Your task to perform on an android device: open app "Speedtest by Ookla" Image 0: 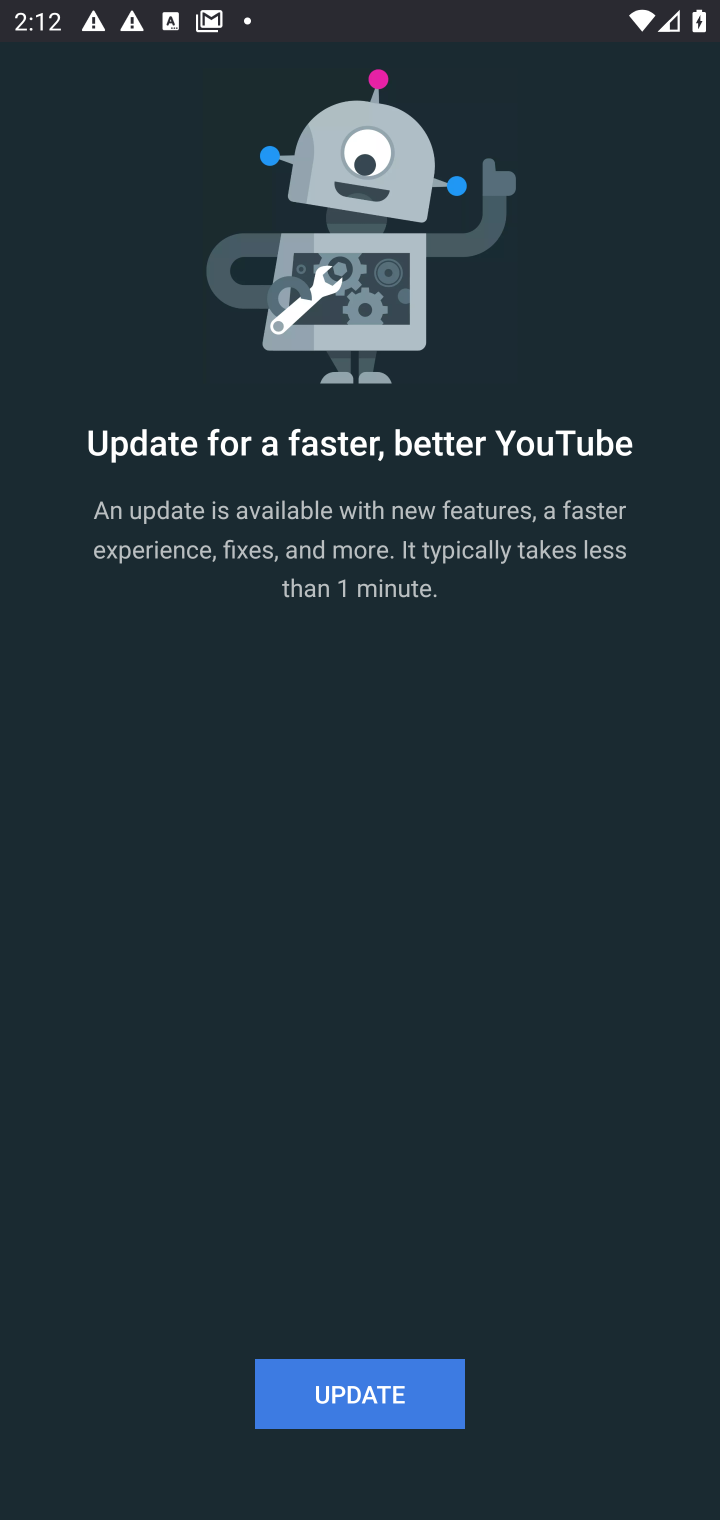
Step 0: press home button
Your task to perform on an android device: open app "Speedtest by Ookla" Image 1: 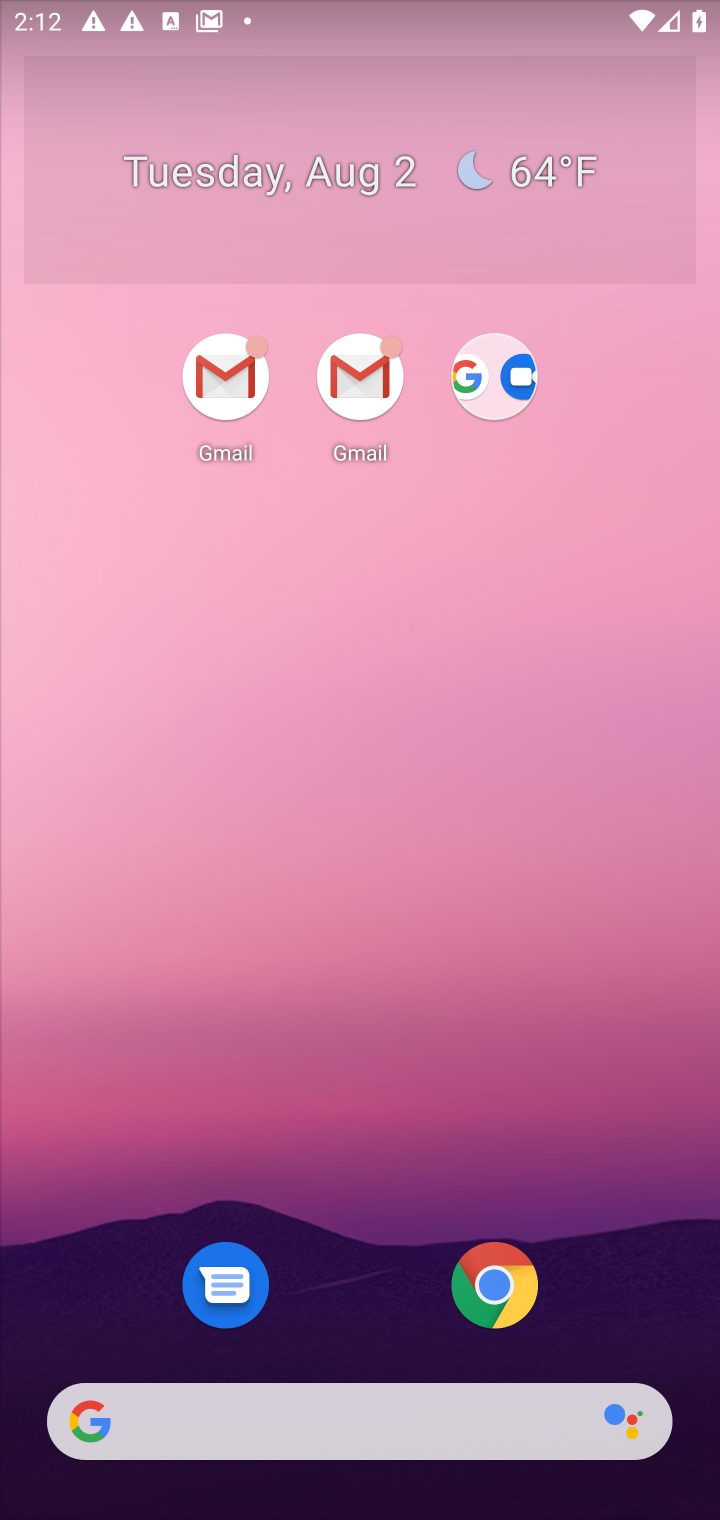
Step 1: drag from (573, 1174) to (539, 141)
Your task to perform on an android device: open app "Speedtest by Ookla" Image 2: 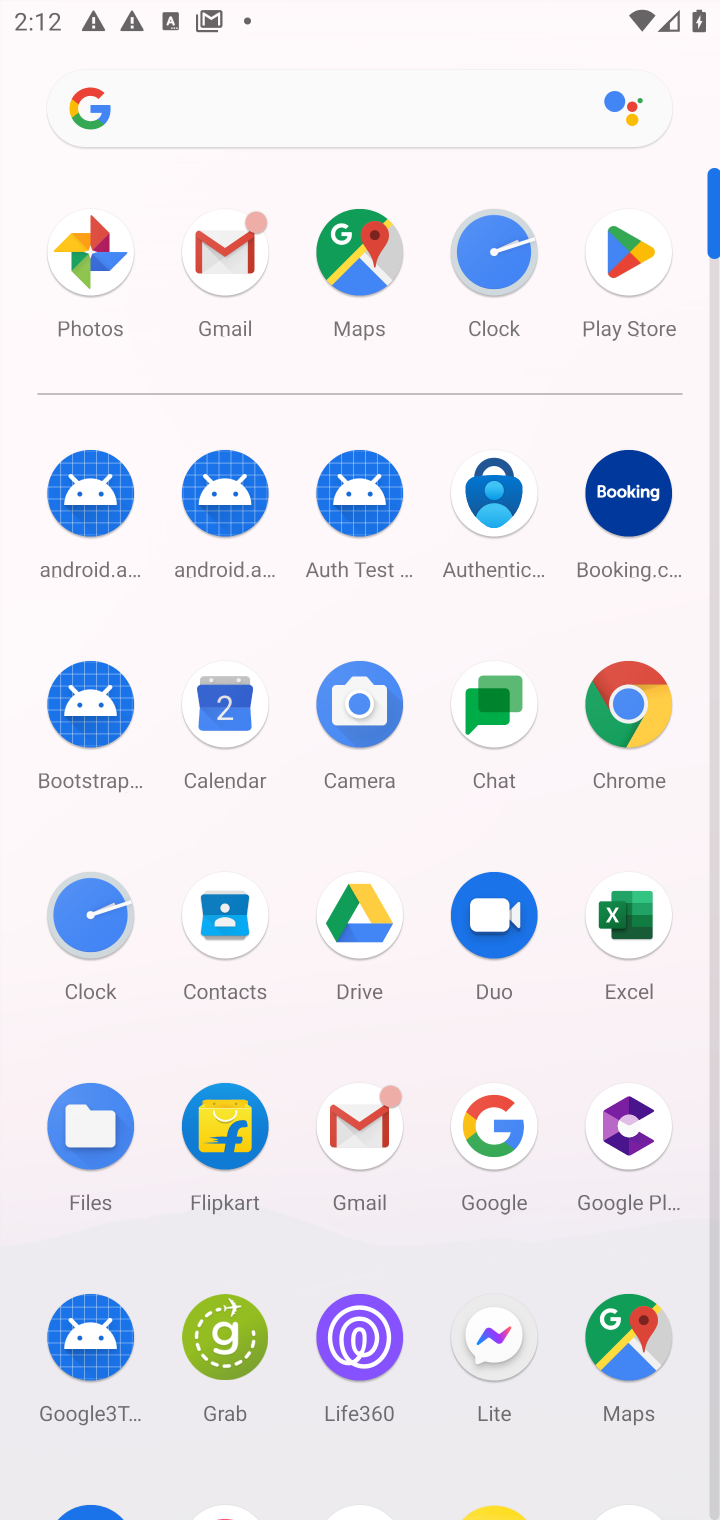
Step 2: drag from (430, 952) to (449, 220)
Your task to perform on an android device: open app "Speedtest by Ookla" Image 3: 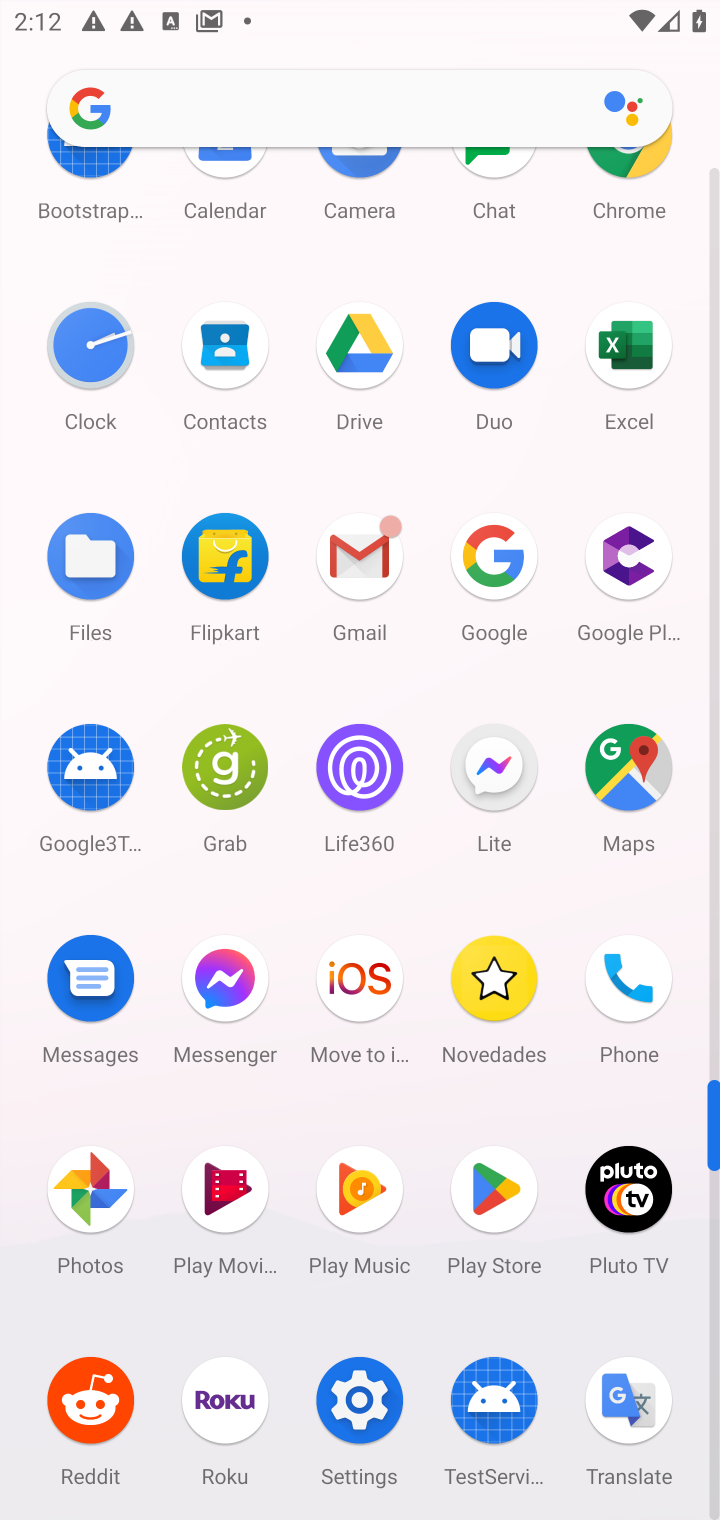
Step 3: click (503, 1183)
Your task to perform on an android device: open app "Speedtest by Ookla" Image 4: 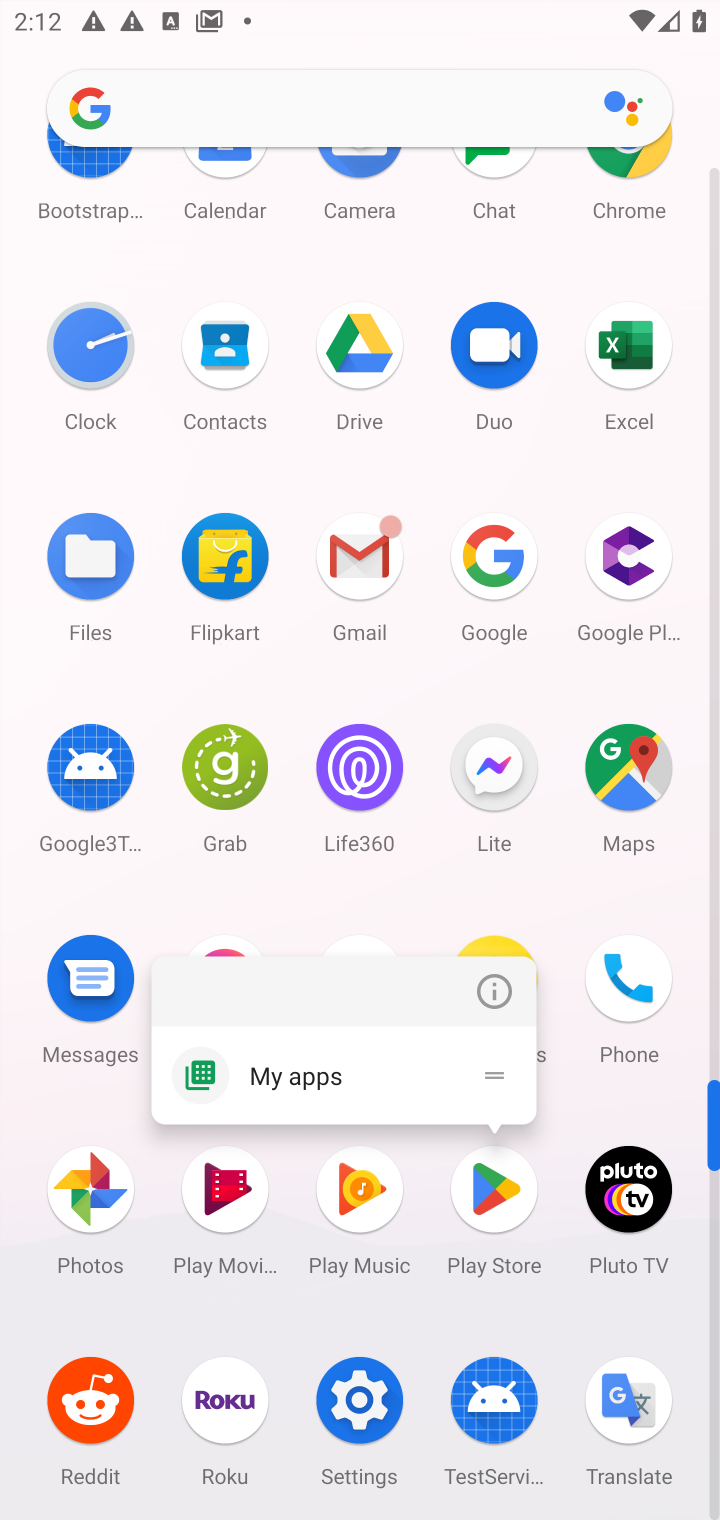
Step 4: click (503, 1183)
Your task to perform on an android device: open app "Speedtest by Ookla" Image 5: 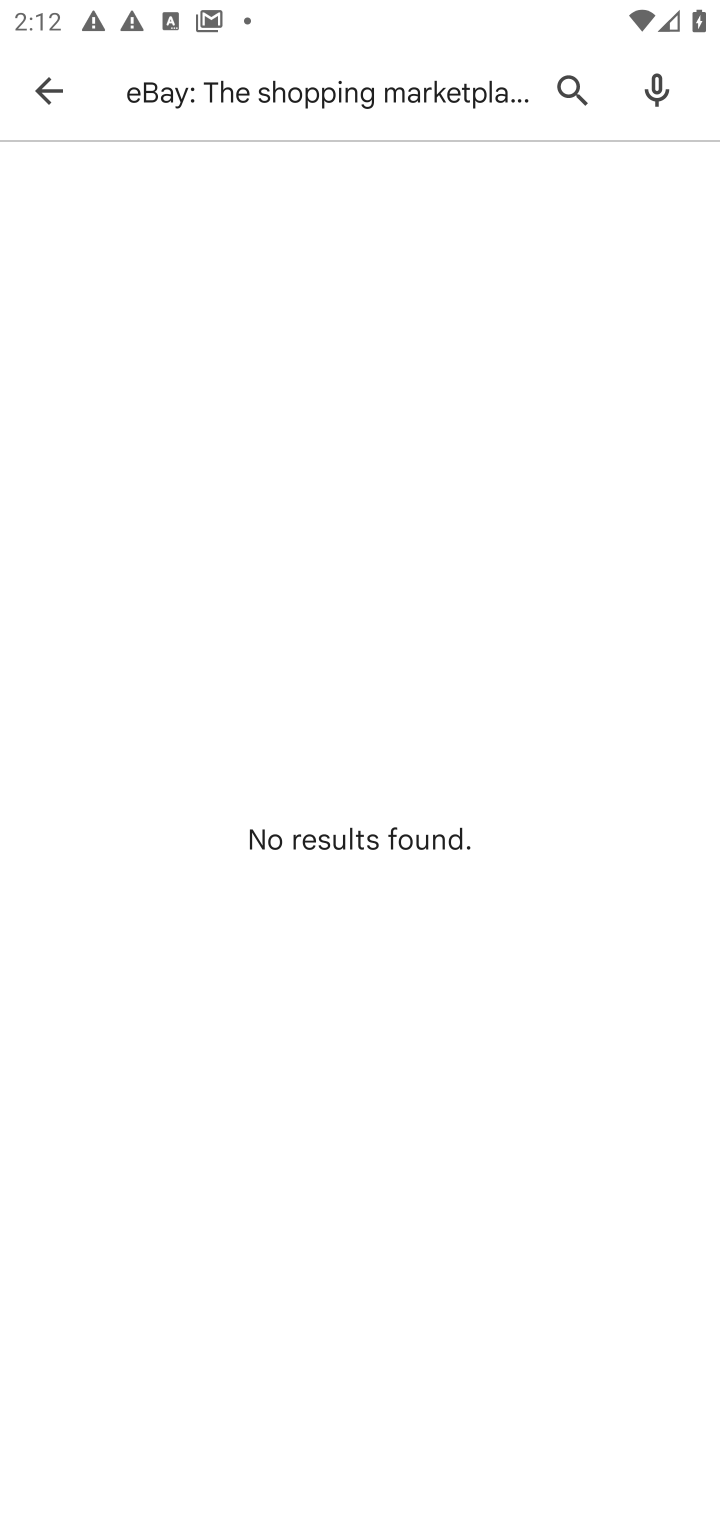
Step 5: click (296, 85)
Your task to perform on an android device: open app "Speedtest by Ookla" Image 6: 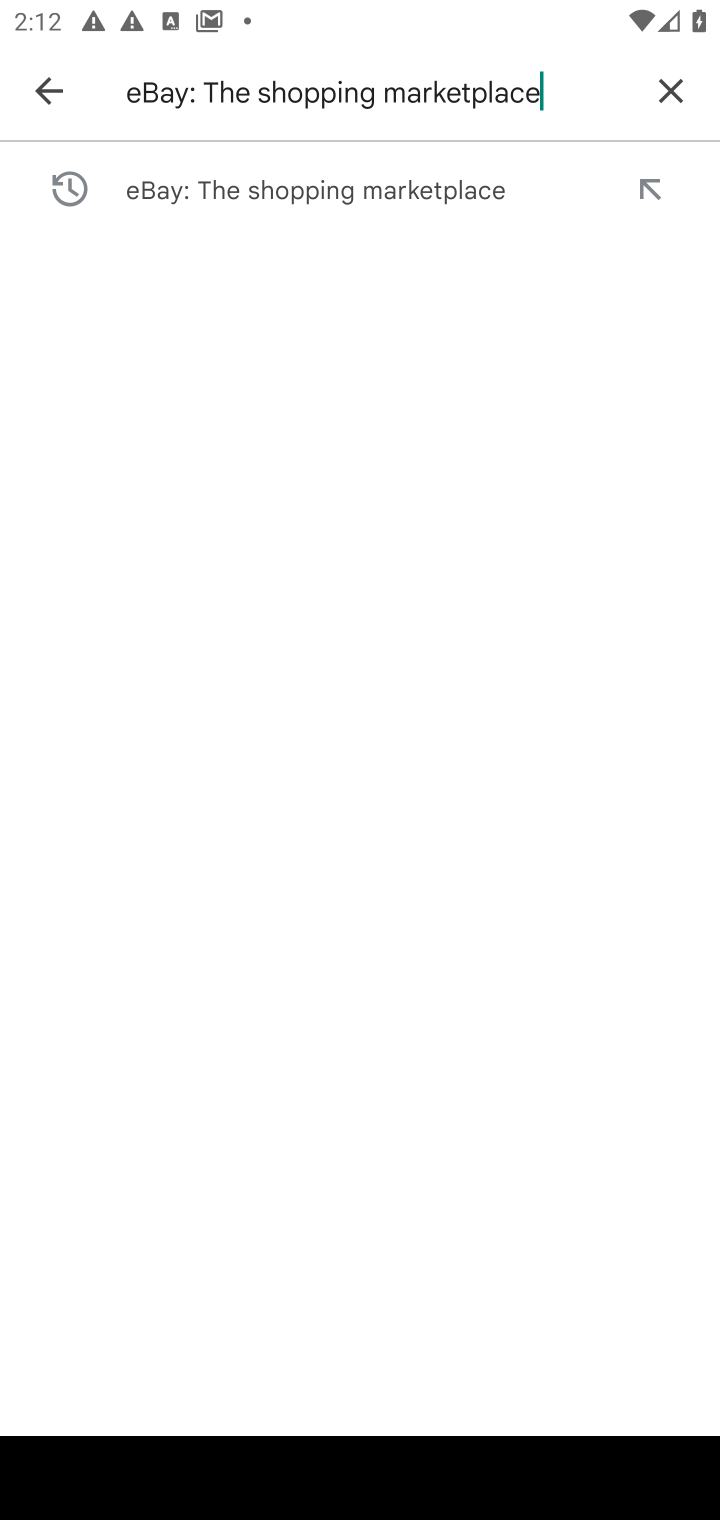
Step 6: click (651, 97)
Your task to perform on an android device: open app "Speedtest by Ookla" Image 7: 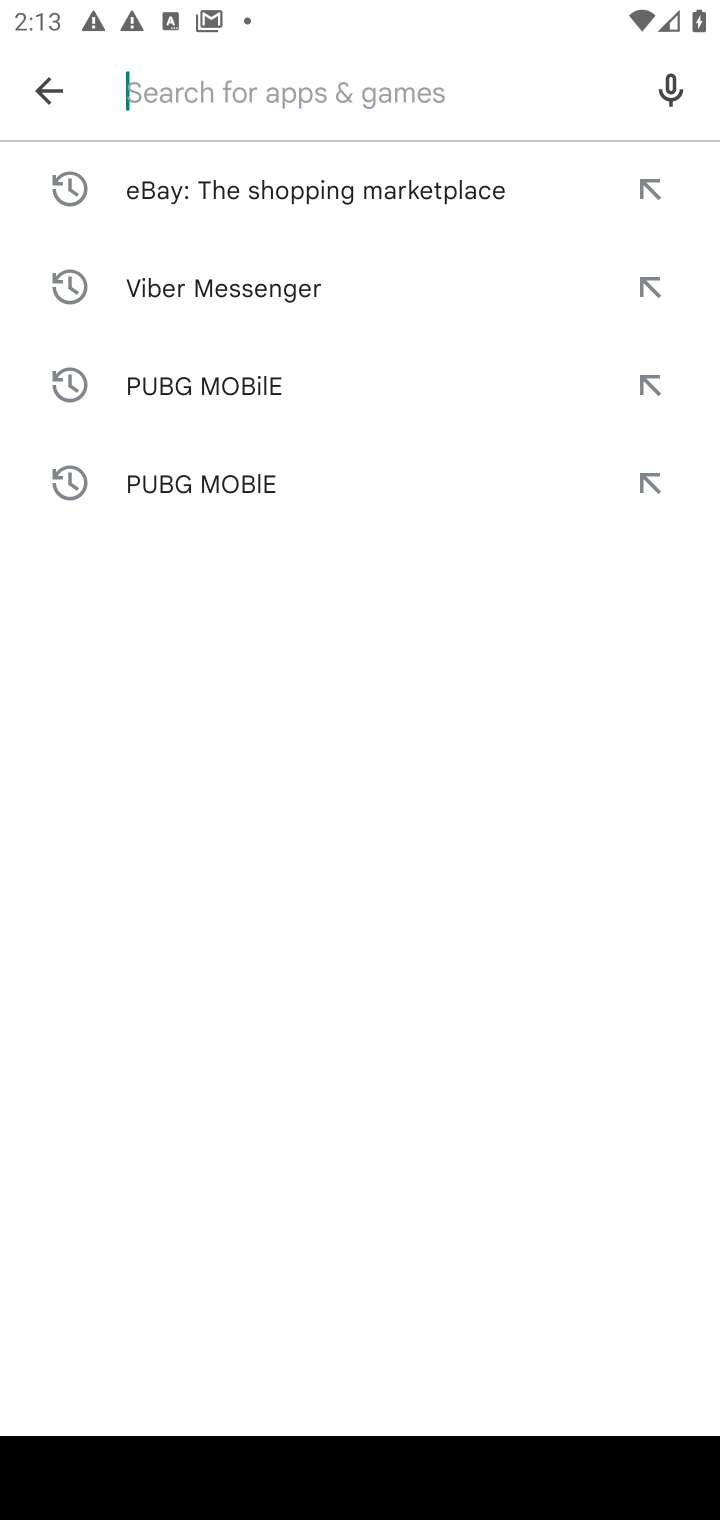
Step 7: type "Speedtest by Ookla"
Your task to perform on an android device: open app "Speedtest by Ookla" Image 8: 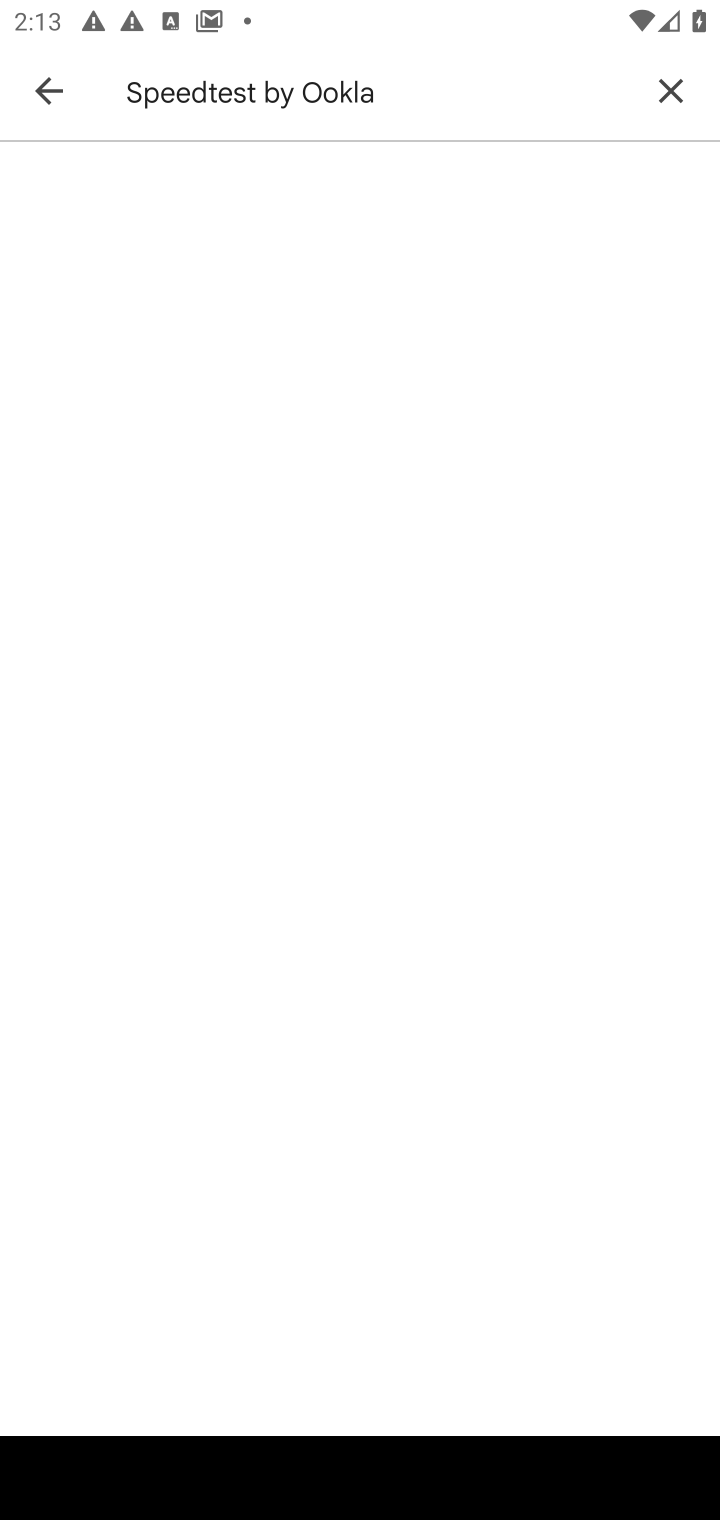
Step 8: press enter
Your task to perform on an android device: open app "Speedtest by Ookla" Image 9: 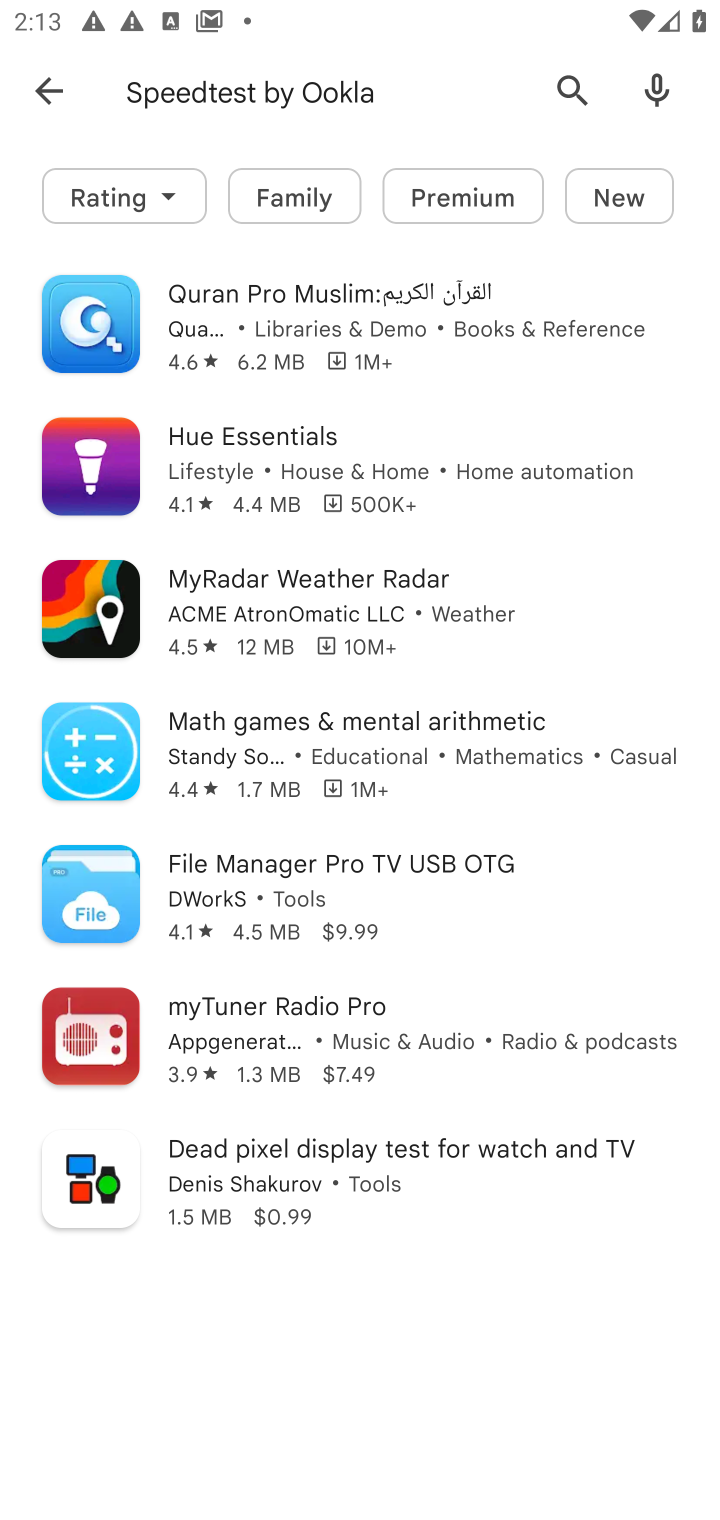
Step 9: press home button
Your task to perform on an android device: open app "Speedtest by Ookla" Image 10: 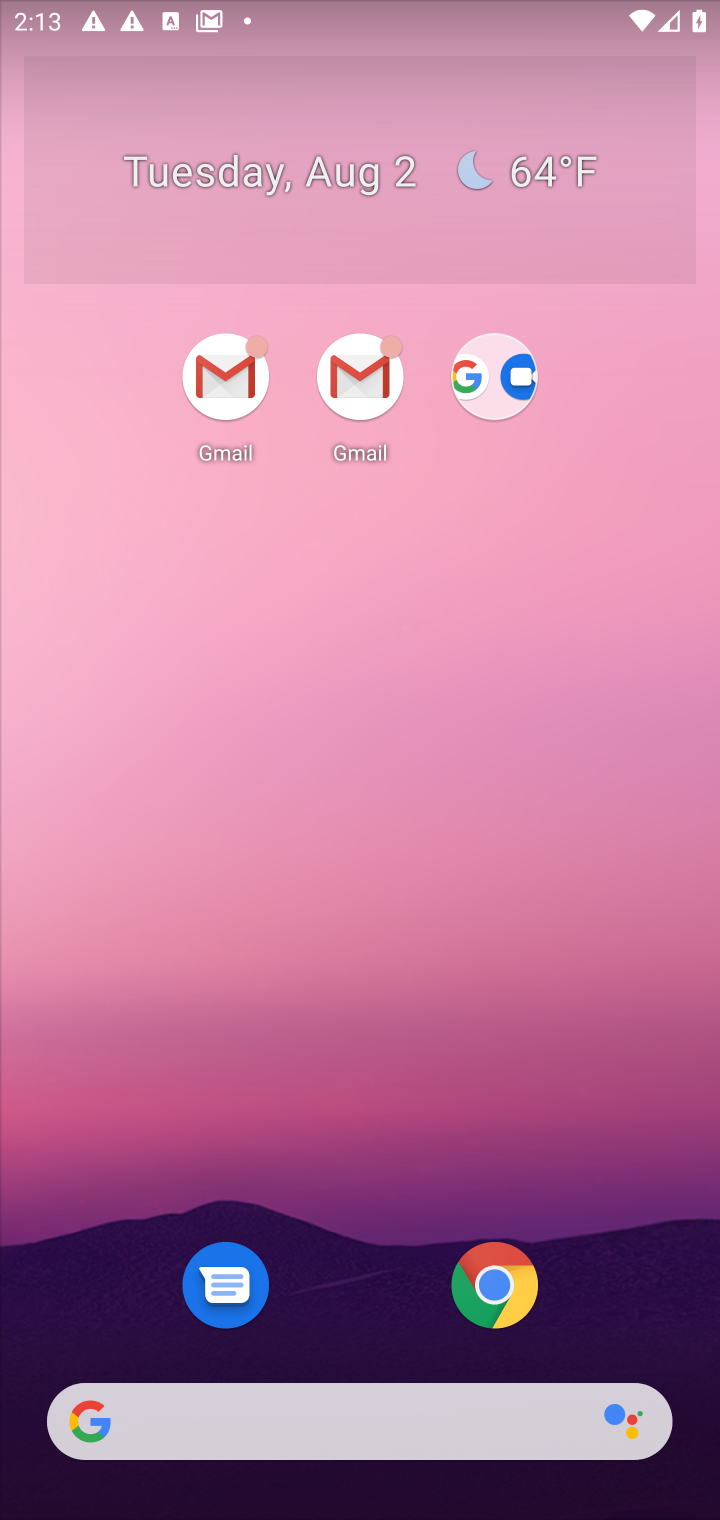
Step 10: drag from (530, 1017) to (535, 100)
Your task to perform on an android device: open app "Speedtest by Ookla" Image 11: 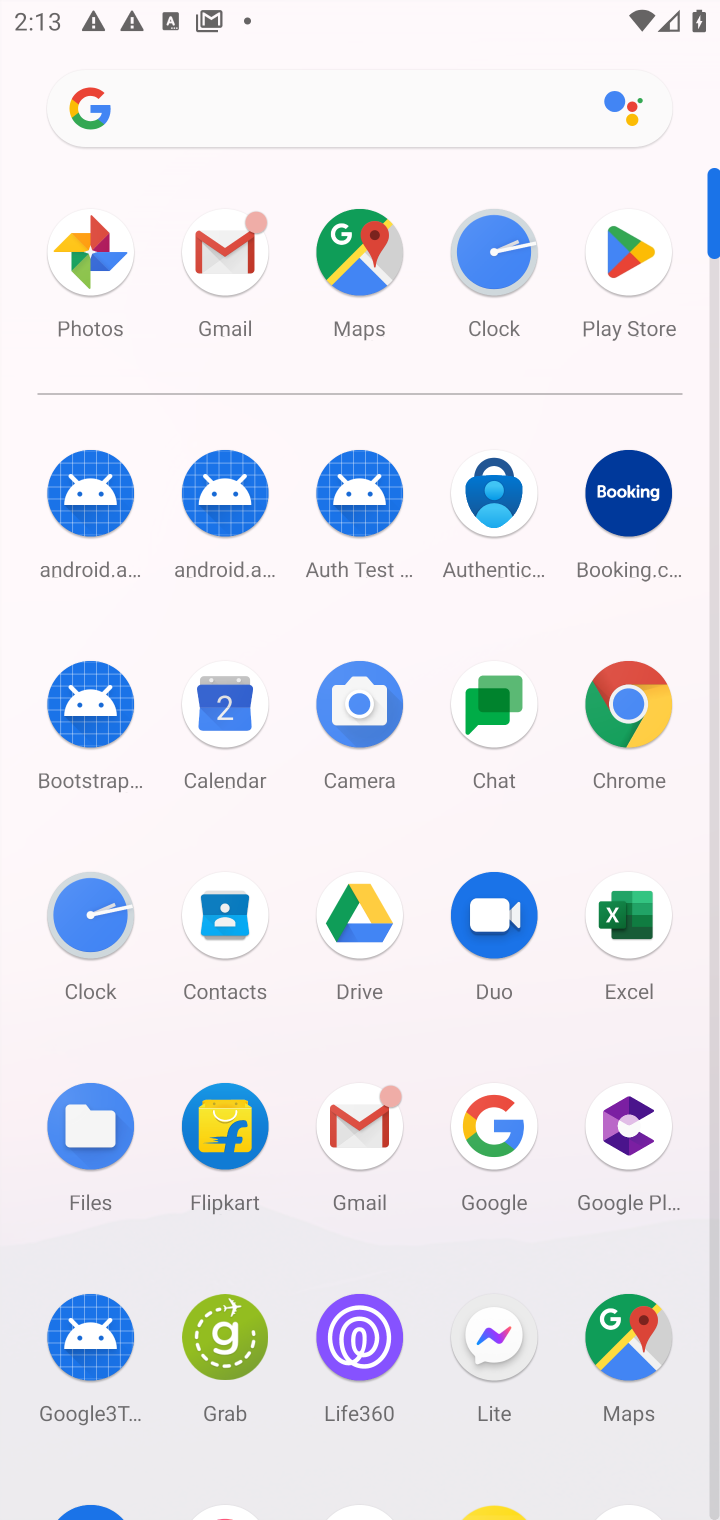
Step 11: click (631, 252)
Your task to perform on an android device: open app "Speedtest by Ookla" Image 12: 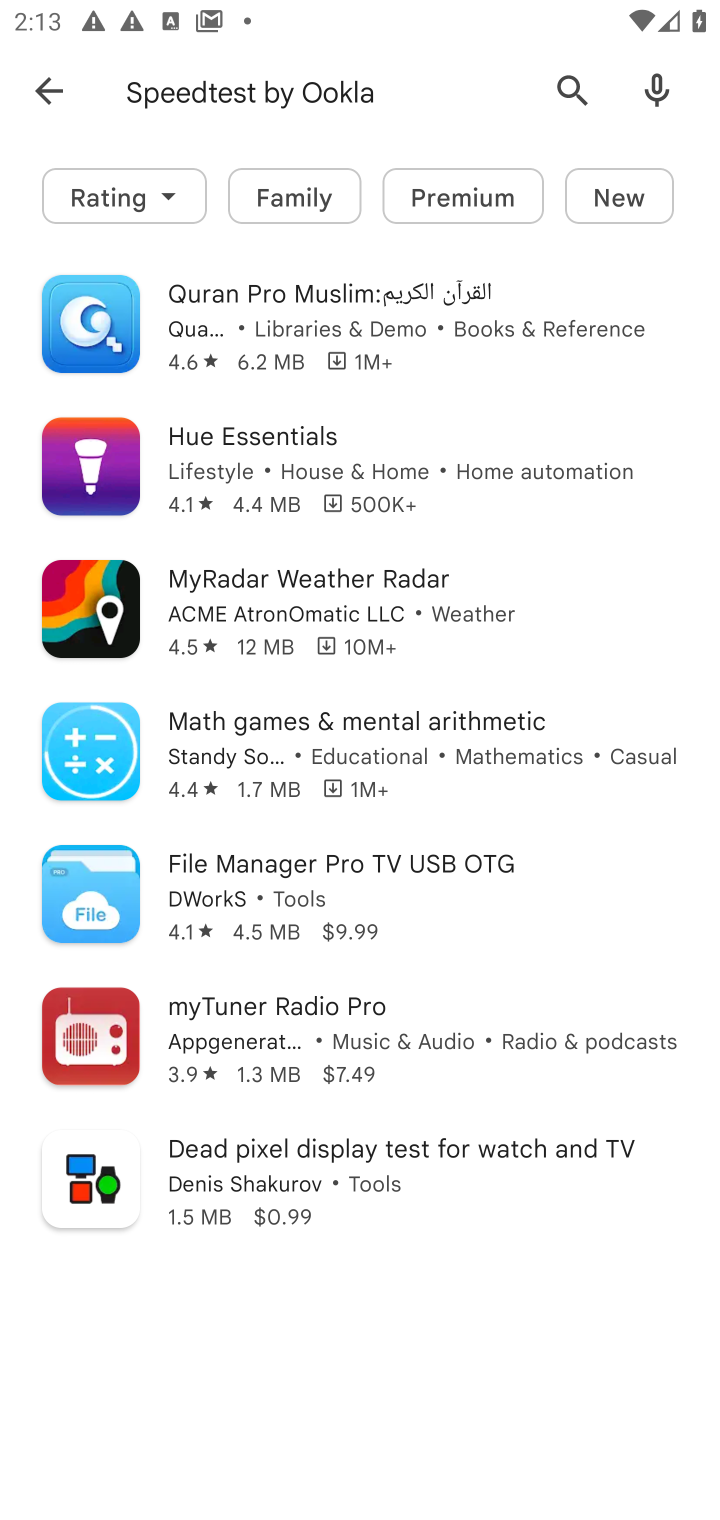
Step 12: click (458, 90)
Your task to perform on an android device: open app "Speedtest by Ookla" Image 13: 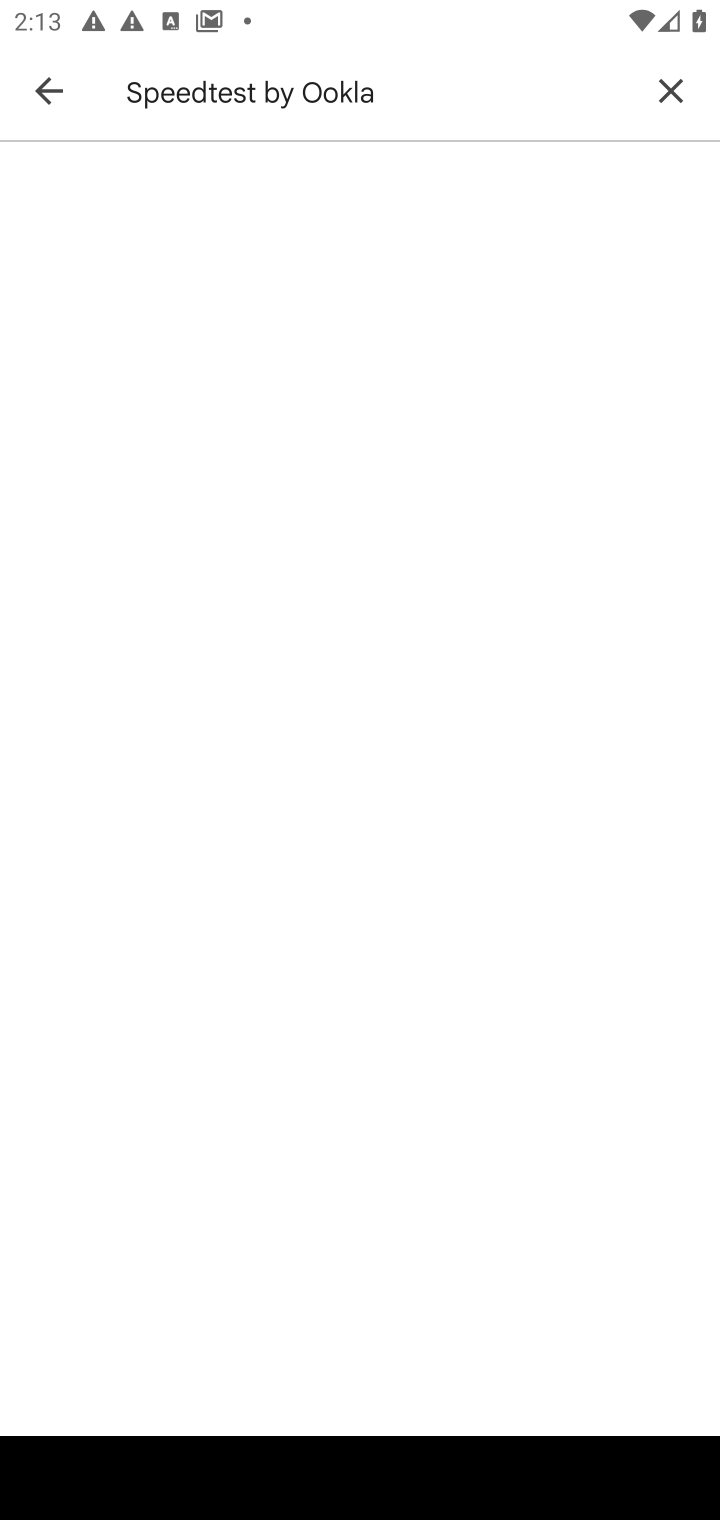
Step 13: click (681, 84)
Your task to perform on an android device: open app "Speedtest by Ookla" Image 14: 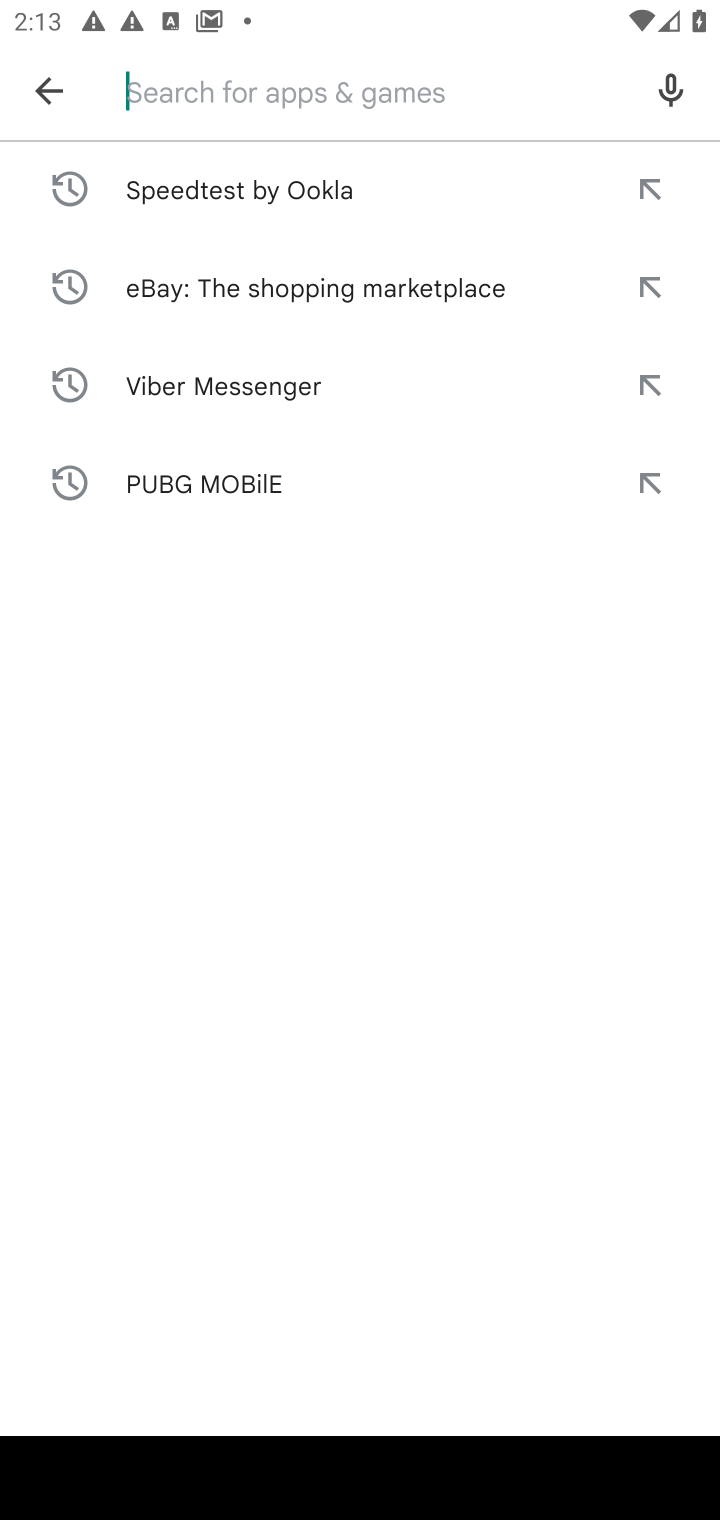
Step 14: click (396, 182)
Your task to perform on an android device: open app "Speedtest by Ookla" Image 15: 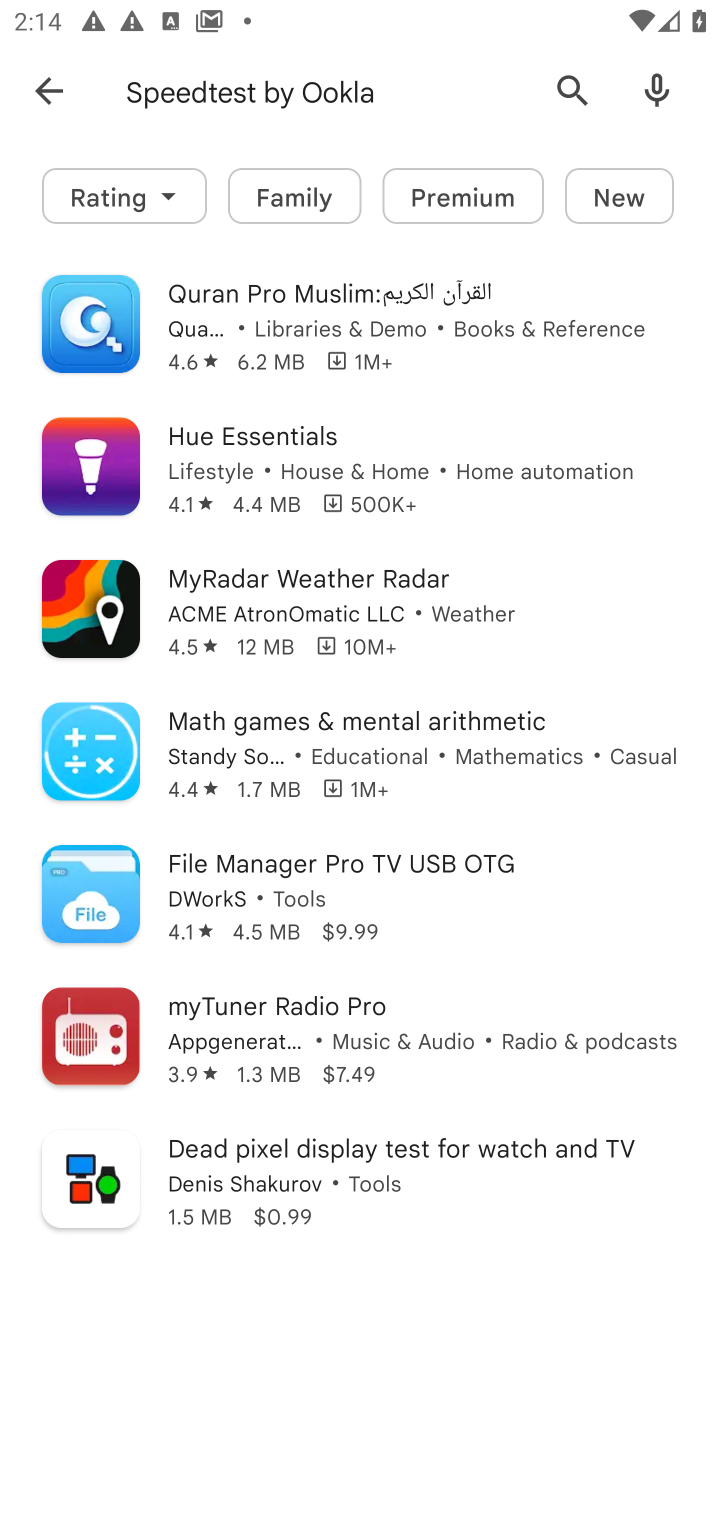
Step 15: task complete